Your task to perform on an android device: set default search engine in the chrome app Image 0: 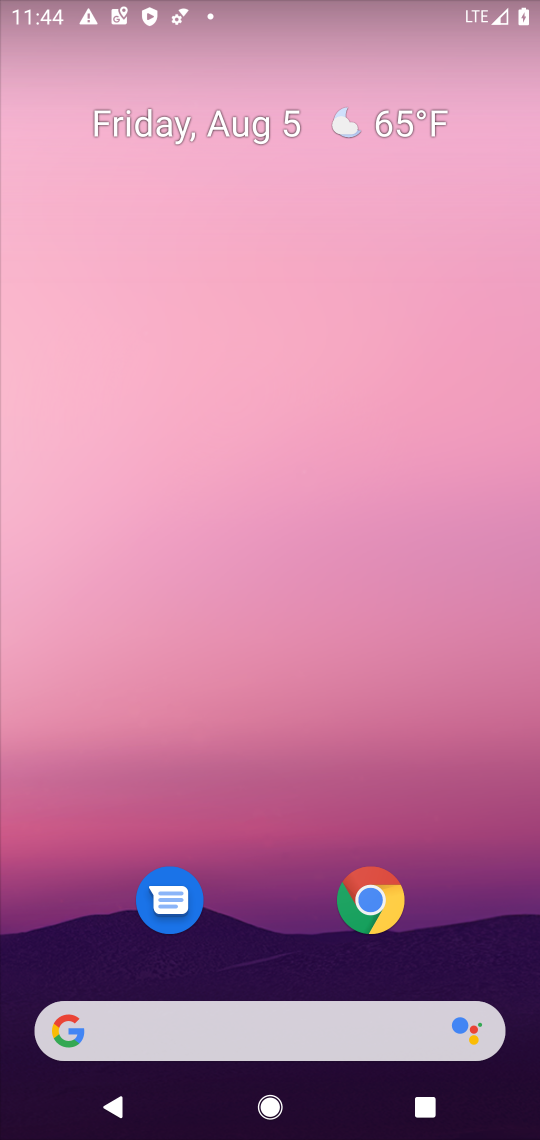
Step 0: drag from (263, 804) to (268, 122)
Your task to perform on an android device: set default search engine in the chrome app Image 1: 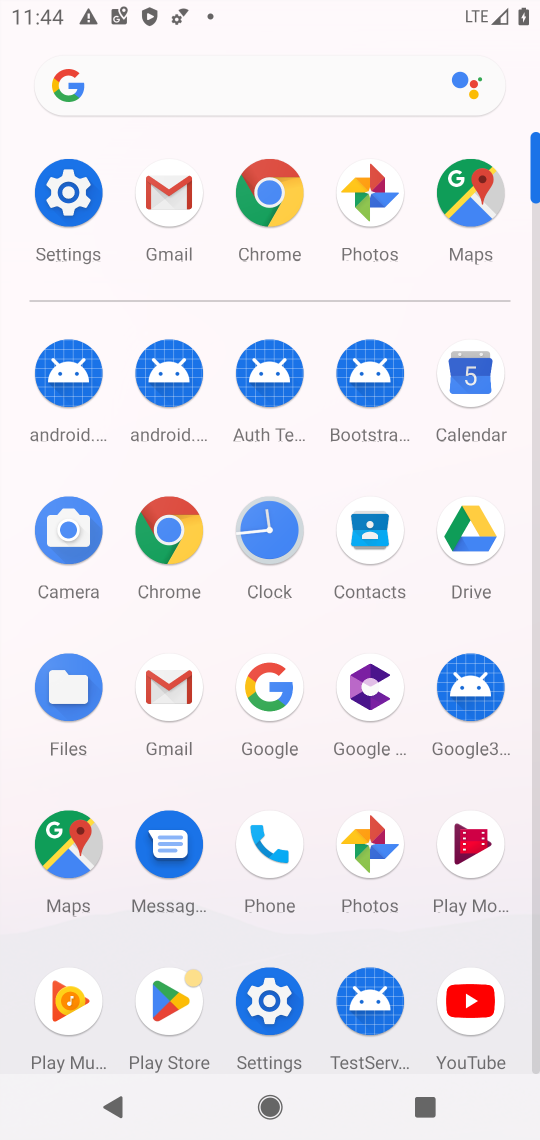
Step 1: click (166, 530)
Your task to perform on an android device: set default search engine in the chrome app Image 2: 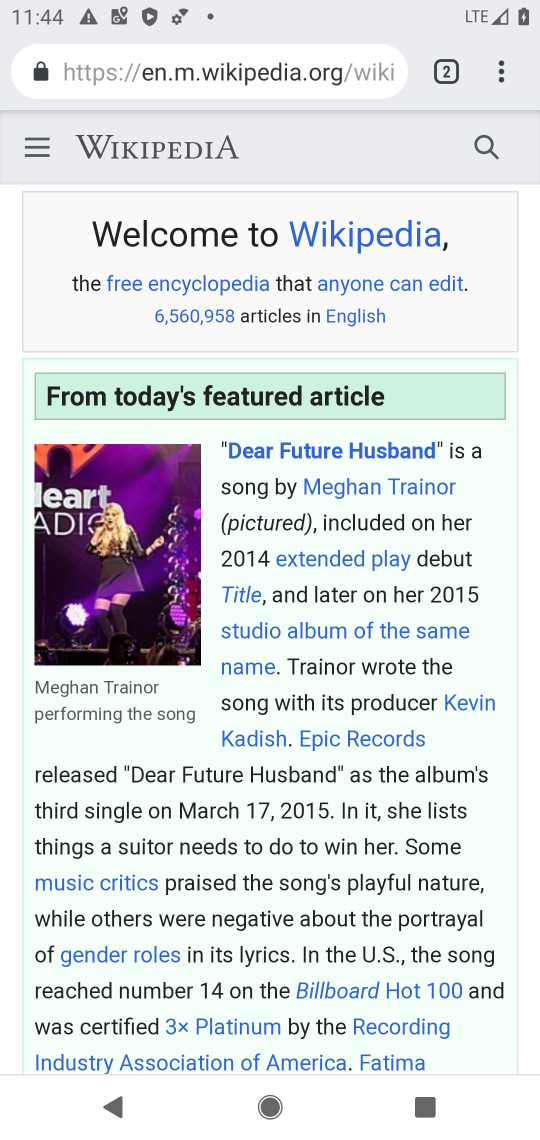
Step 2: click (503, 81)
Your task to perform on an android device: set default search engine in the chrome app Image 3: 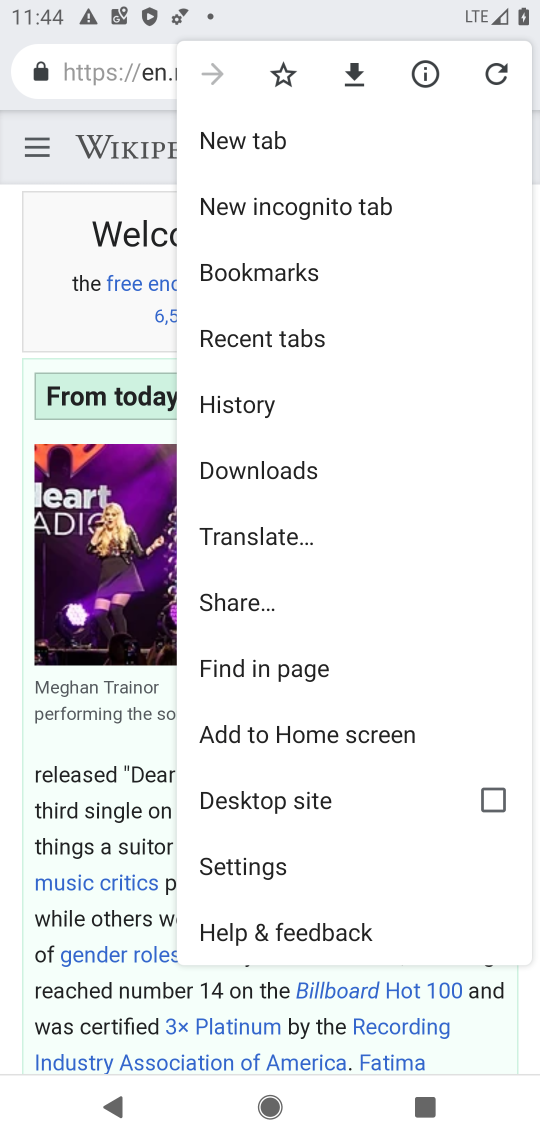
Step 3: click (241, 864)
Your task to perform on an android device: set default search engine in the chrome app Image 4: 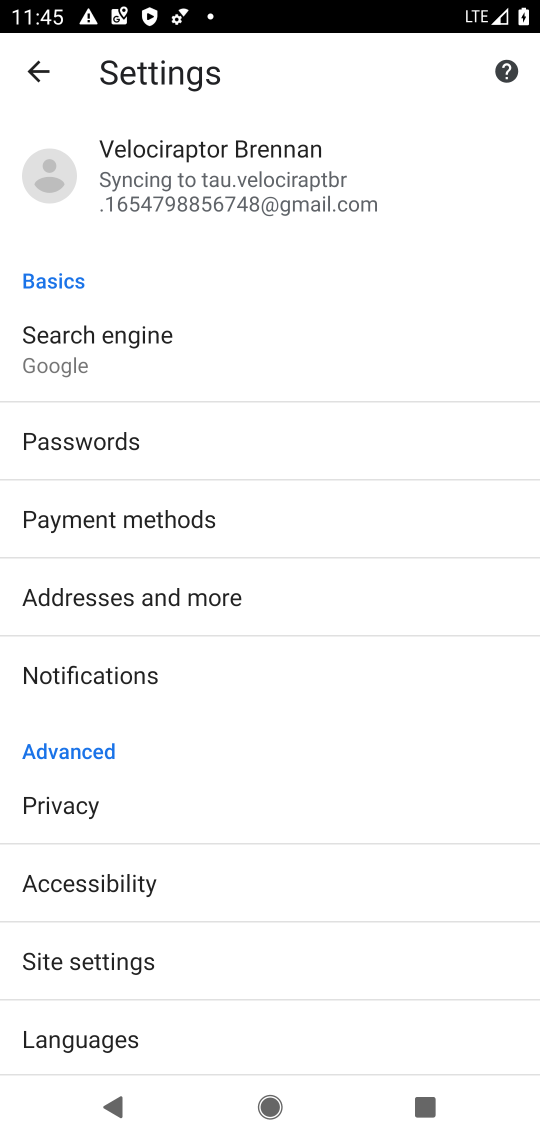
Step 4: drag from (99, 942) to (130, 494)
Your task to perform on an android device: set default search engine in the chrome app Image 5: 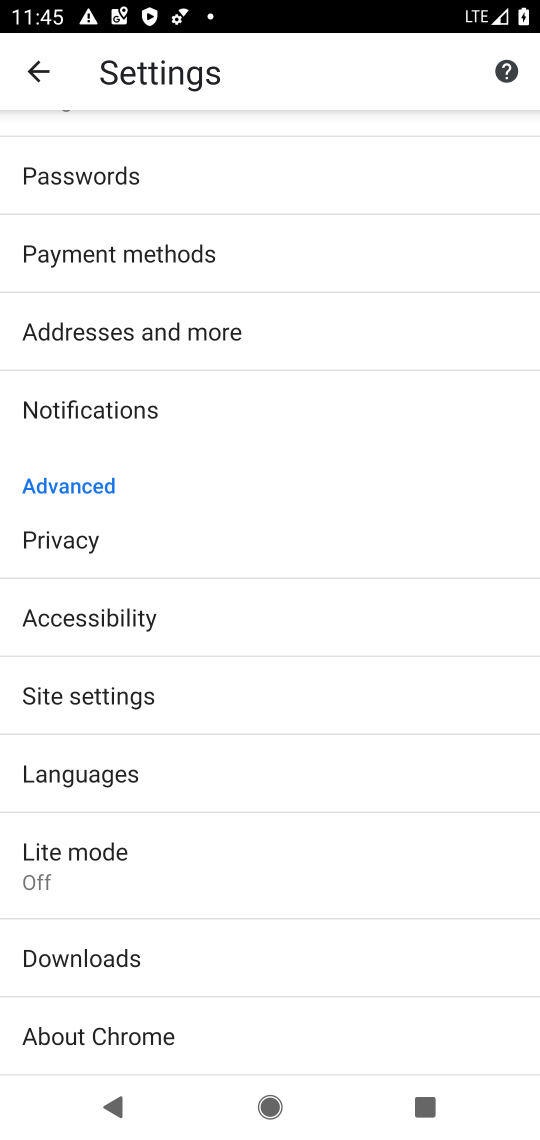
Step 5: drag from (141, 215) to (159, 800)
Your task to perform on an android device: set default search engine in the chrome app Image 6: 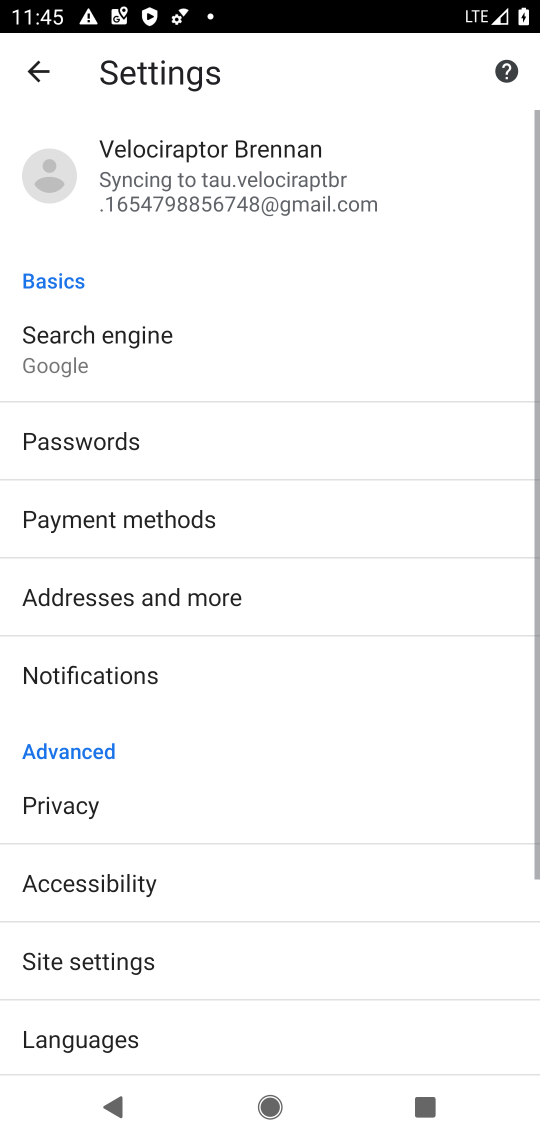
Step 6: click (59, 348)
Your task to perform on an android device: set default search engine in the chrome app Image 7: 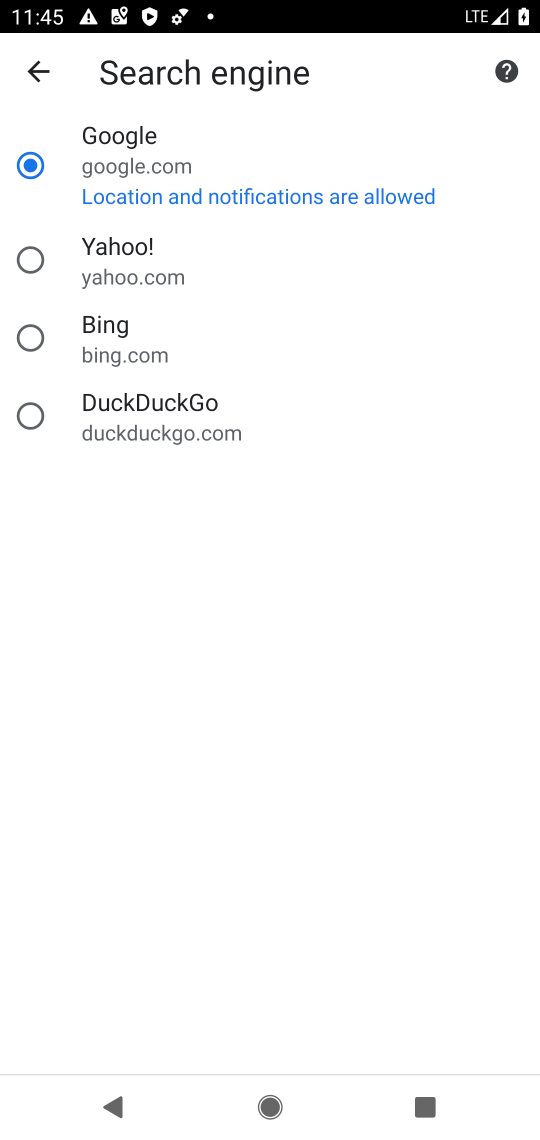
Step 7: click (27, 254)
Your task to perform on an android device: set default search engine in the chrome app Image 8: 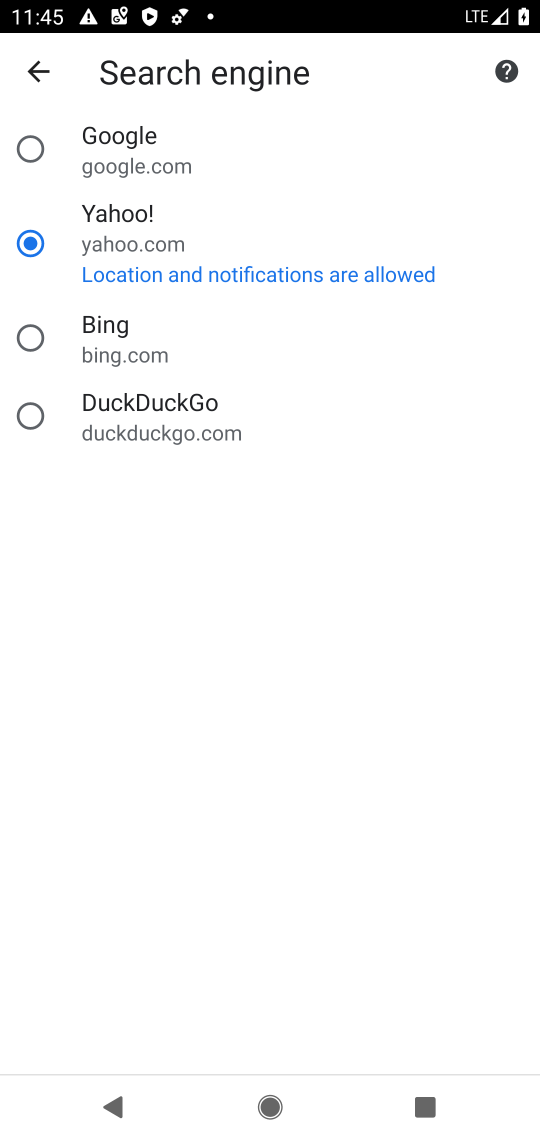
Step 8: task complete